Your task to perform on an android device: Open accessibility settings Image 0: 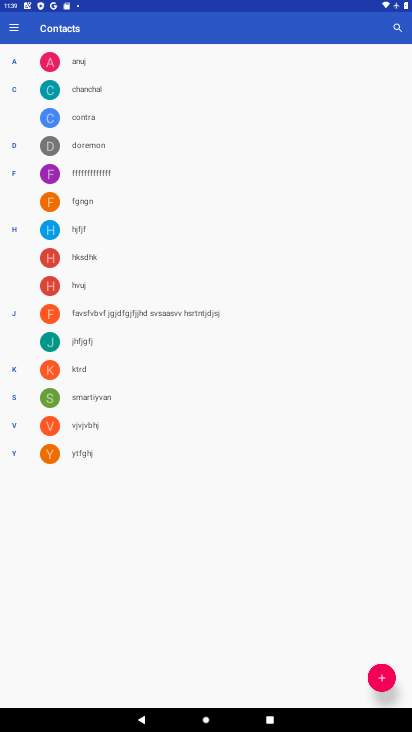
Step 0: press home button
Your task to perform on an android device: Open accessibility settings Image 1: 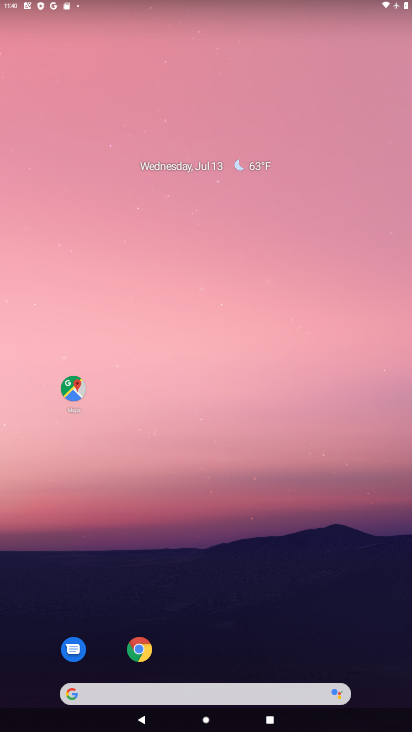
Step 1: drag from (217, 606) to (271, 197)
Your task to perform on an android device: Open accessibility settings Image 2: 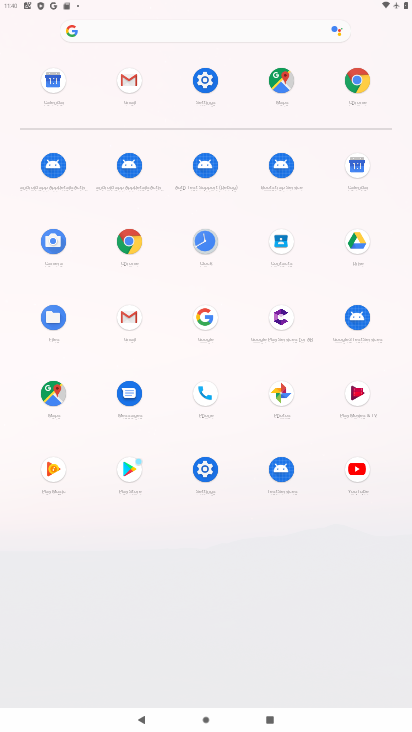
Step 2: click (208, 86)
Your task to perform on an android device: Open accessibility settings Image 3: 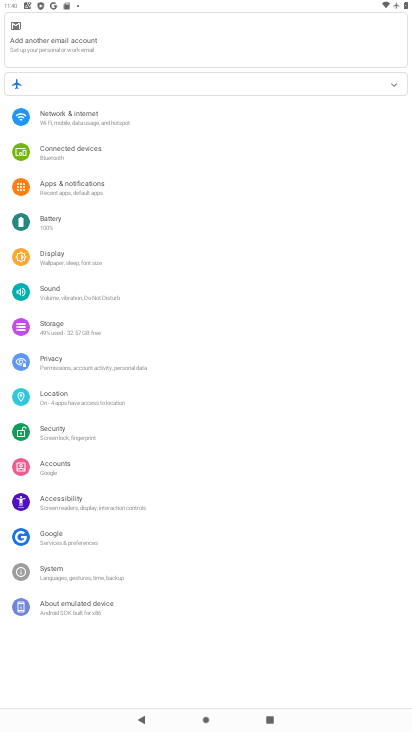
Step 3: click (107, 500)
Your task to perform on an android device: Open accessibility settings Image 4: 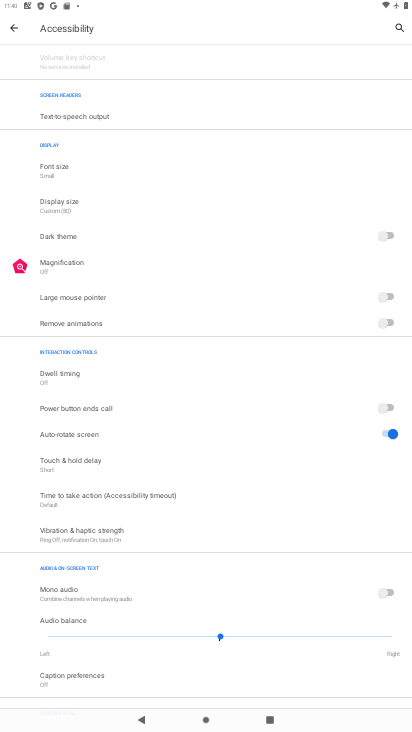
Step 4: task complete